Your task to perform on an android device: read, delete, or share a saved page in the chrome app Image 0: 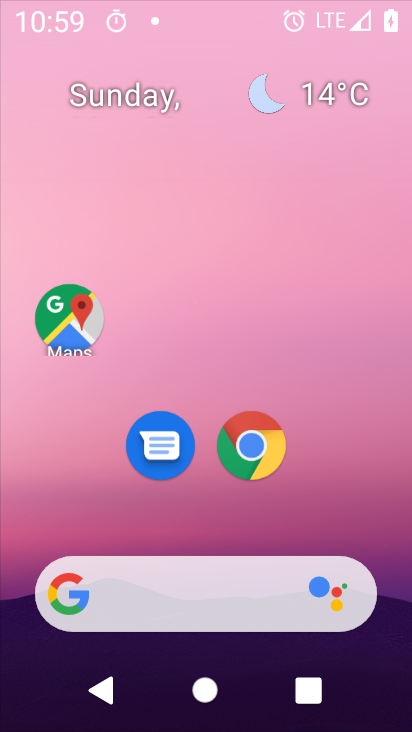
Step 0: drag from (201, 514) to (206, 98)
Your task to perform on an android device: read, delete, or share a saved page in the chrome app Image 1: 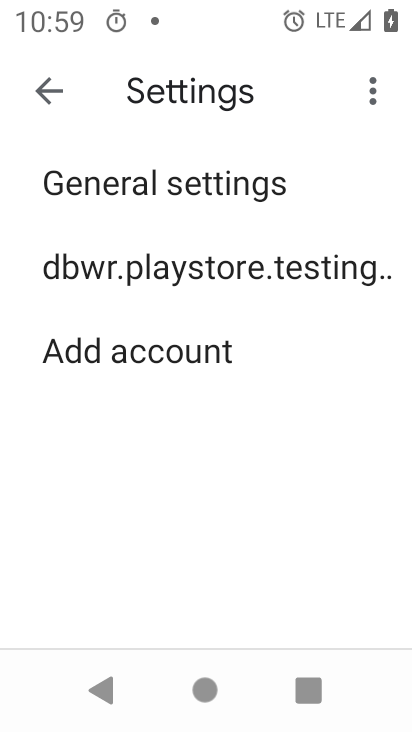
Step 1: press home button
Your task to perform on an android device: read, delete, or share a saved page in the chrome app Image 2: 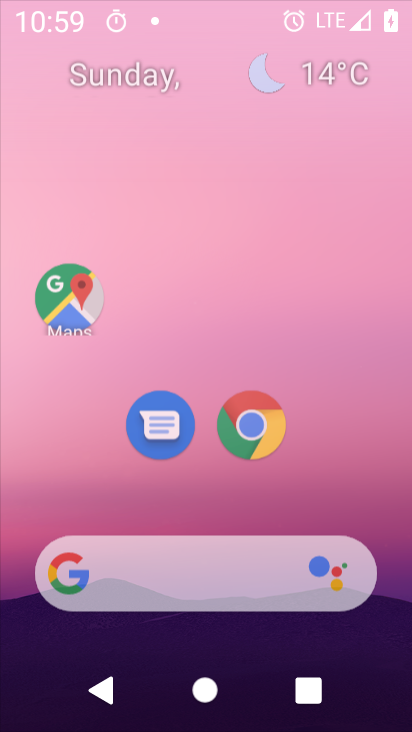
Step 2: drag from (225, 532) to (222, 51)
Your task to perform on an android device: read, delete, or share a saved page in the chrome app Image 3: 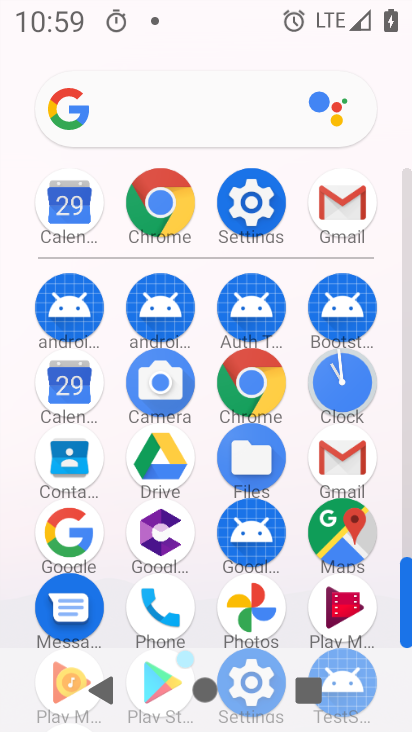
Step 3: click (248, 385)
Your task to perform on an android device: read, delete, or share a saved page in the chrome app Image 4: 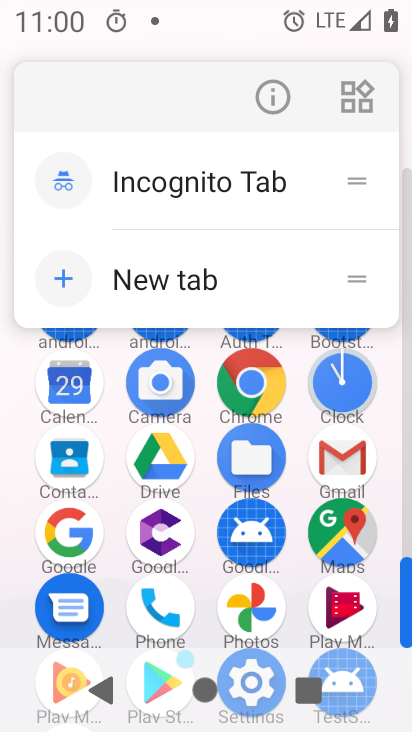
Step 4: click (277, 89)
Your task to perform on an android device: read, delete, or share a saved page in the chrome app Image 5: 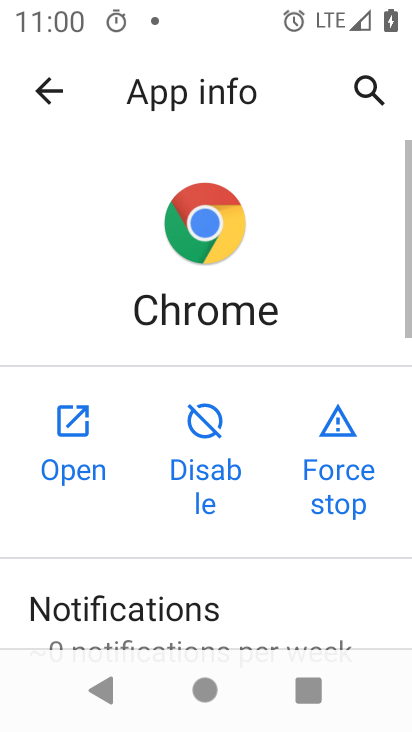
Step 5: click (79, 424)
Your task to perform on an android device: read, delete, or share a saved page in the chrome app Image 6: 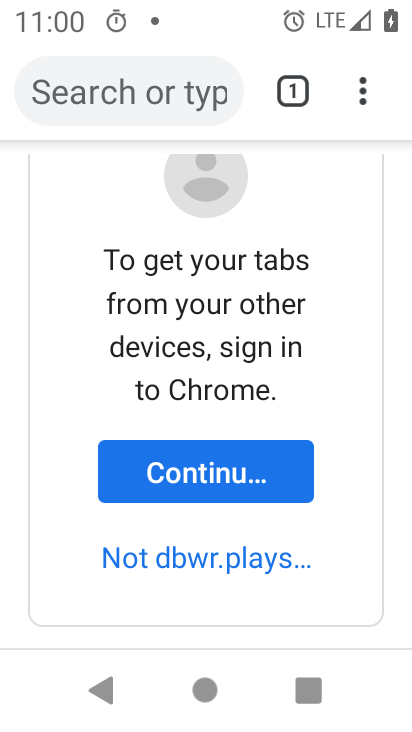
Step 6: click (360, 104)
Your task to perform on an android device: read, delete, or share a saved page in the chrome app Image 7: 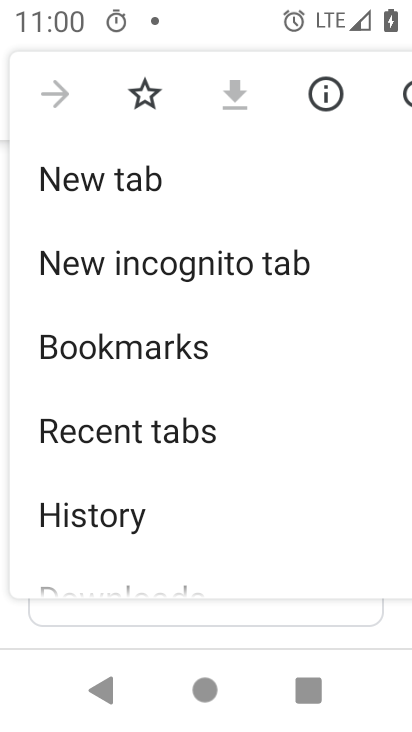
Step 7: click (173, 327)
Your task to perform on an android device: read, delete, or share a saved page in the chrome app Image 8: 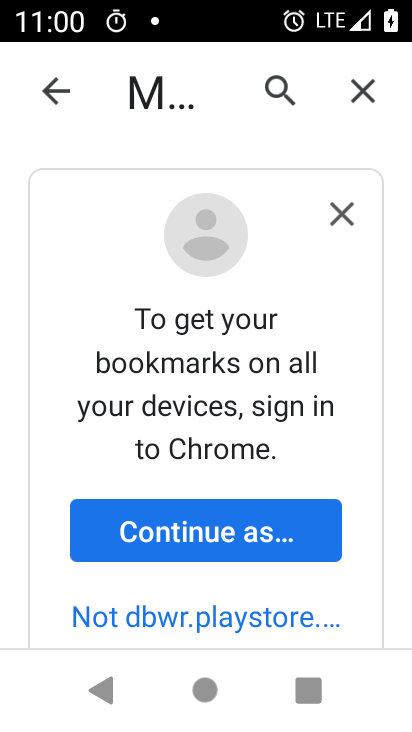
Step 8: task complete